Your task to perform on an android device: change the upload size in google photos Image 0: 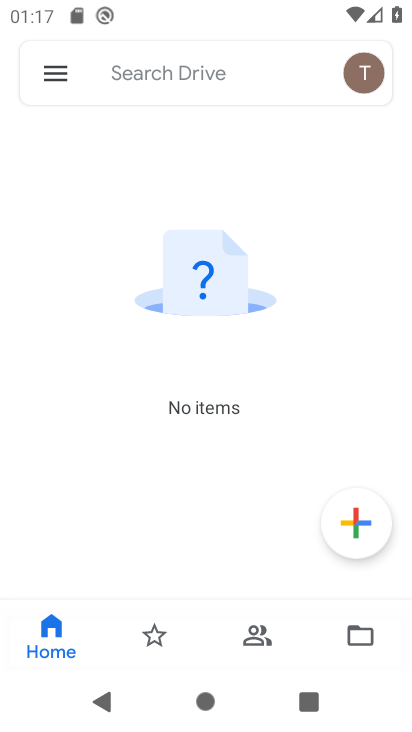
Step 0: press home button
Your task to perform on an android device: change the upload size in google photos Image 1: 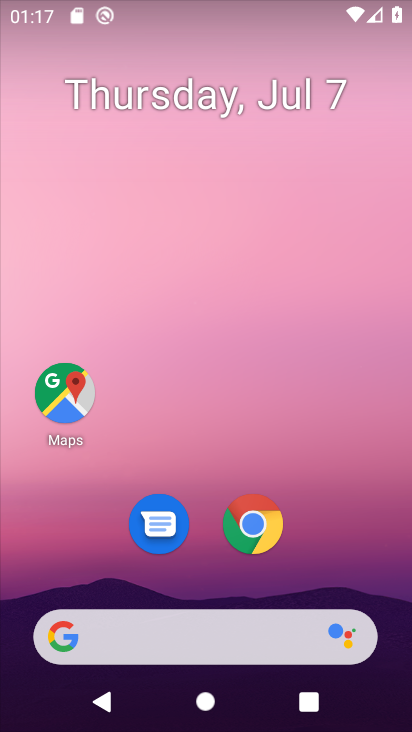
Step 1: drag from (288, 528) to (293, 52)
Your task to perform on an android device: change the upload size in google photos Image 2: 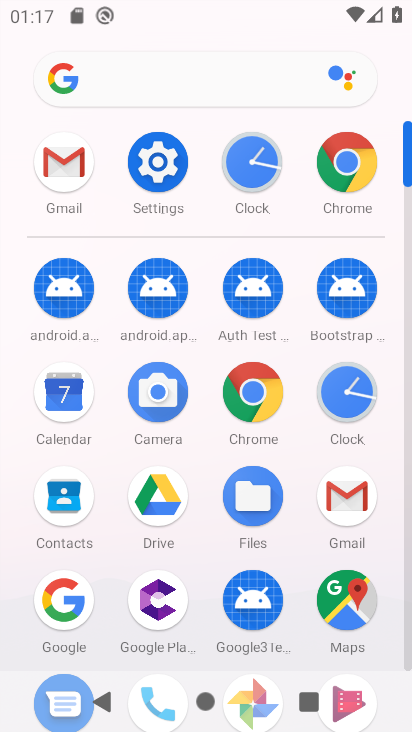
Step 2: drag from (198, 566) to (209, 354)
Your task to perform on an android device: change the upload size in google photos Image 3: 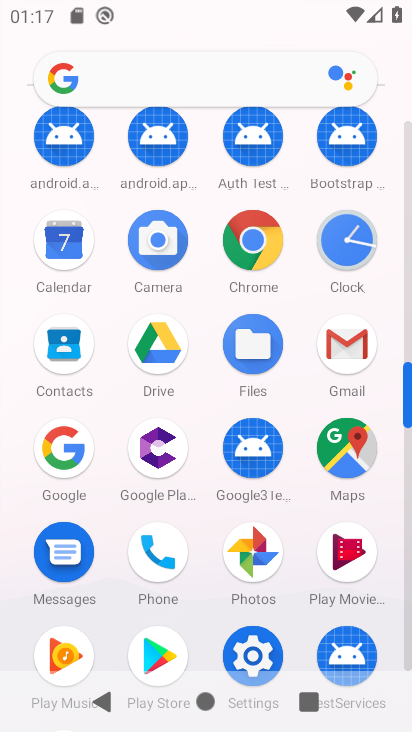
Step 3: click (250, 553)
Your task to perform on an android device: change the upload size in google photos Image 4: 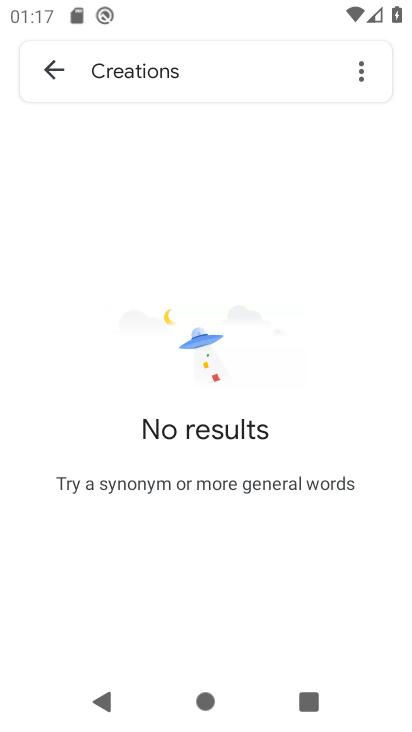
Step 4: click (54, 68)
Your task to perform on an android device: change the upload size in google photos Image 5: 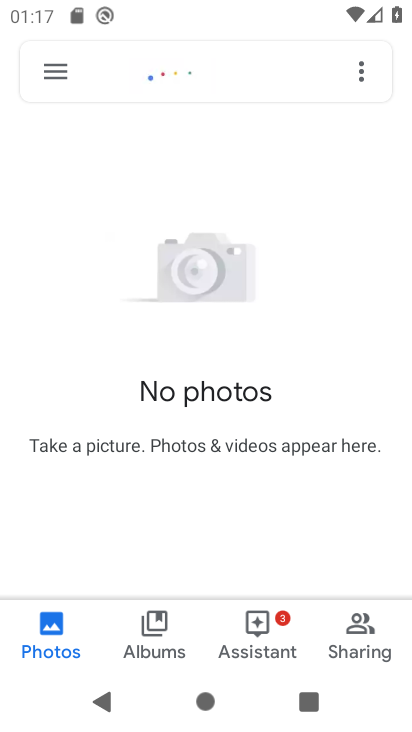
Step 5: click (51, 74)
Your task to perform on an android device: change the upload size in google photos Image 6: 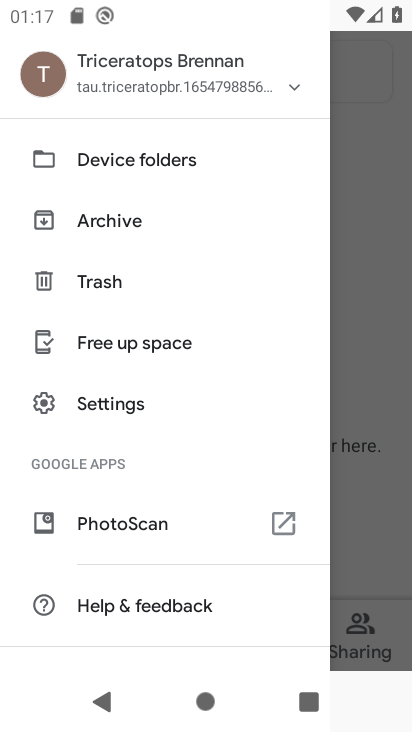
Step 6: click (112, 399)
Your task to perform on an android device: change the upload size in google photos Image 7: 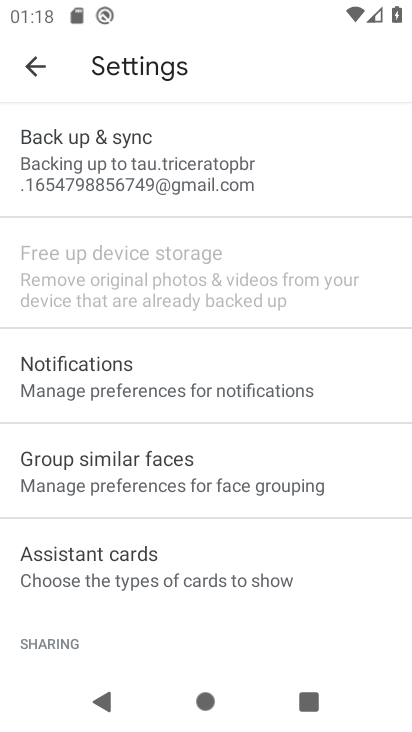
Step 7: drag from (209, 528) to (206, 241)
Your task to perform on an android device: change the upload size in google photos Image 8: 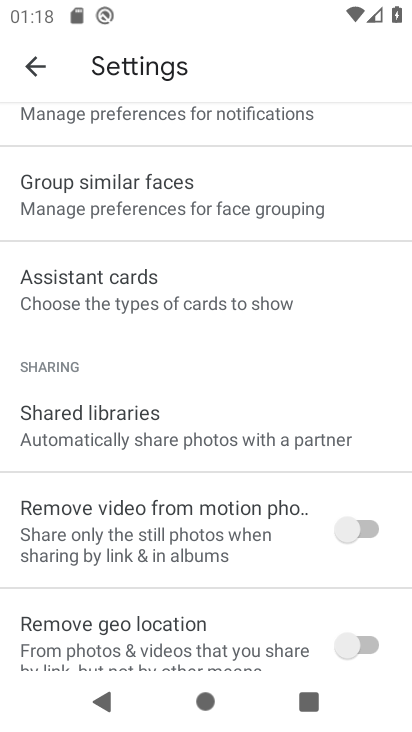
Step 8: drag from (206, 280) to (259, 620)
Your task to perform on an android device: change the upload size in google photos Image 9: 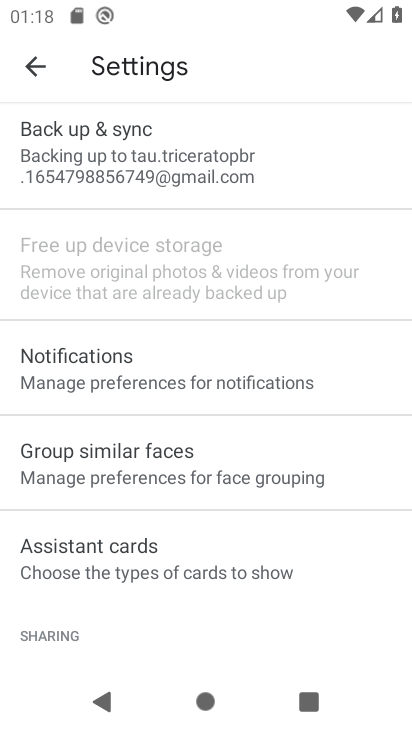
Step 9: click (163, 159)
Your task to perform on an android device: change the upload size in google photos Image 10: 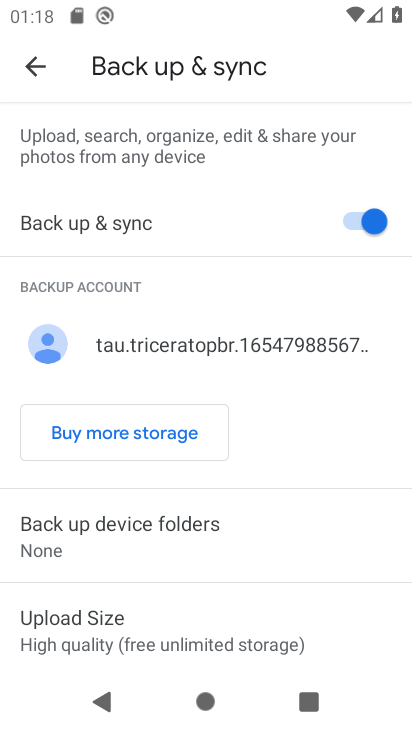
Step 10: click (222, 631)
Your task to perform on an android device: change the upload size in google photos Image 11: 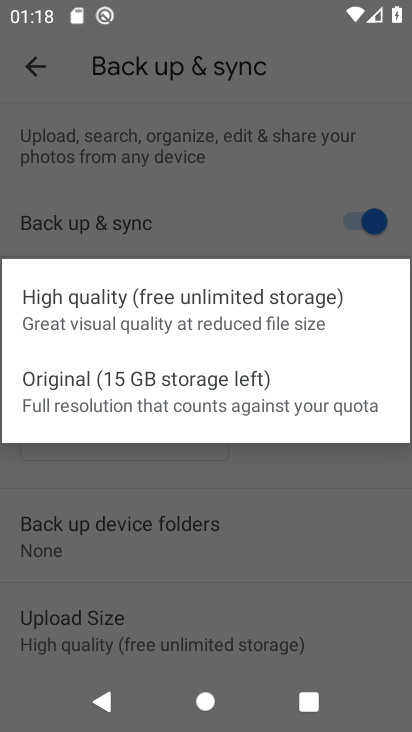
Step 11: click (232, 412)
Your task to perform on an android device: change the upload size in google photos Image 12: 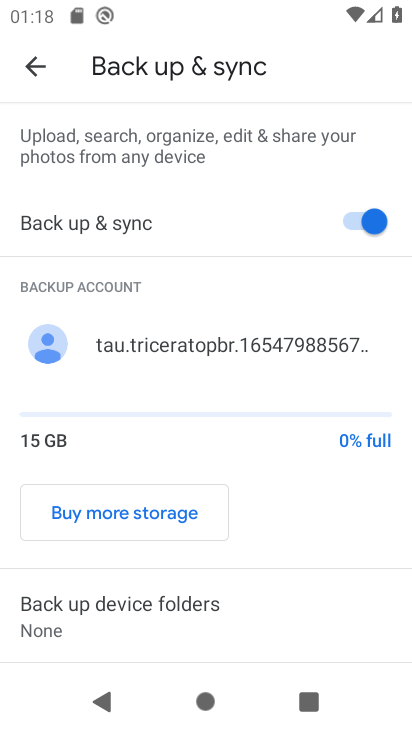
Step 12: task complete